Your task to perform on an android device: change the upload size in google photos Image 0: 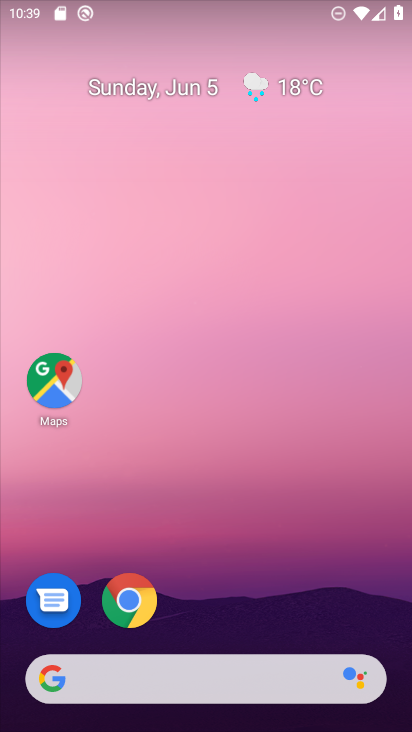
Step 0: drag from (252, 555) to (279, 35)
Your task to perform on an android device: change the upload size in google photos Image 1: 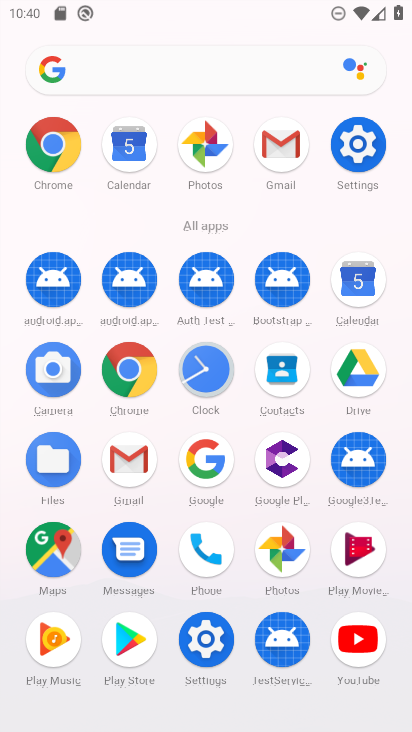
Step 1: click (279, 546)
Your task to perform on an android device: change the upload size in google photos Image 2: 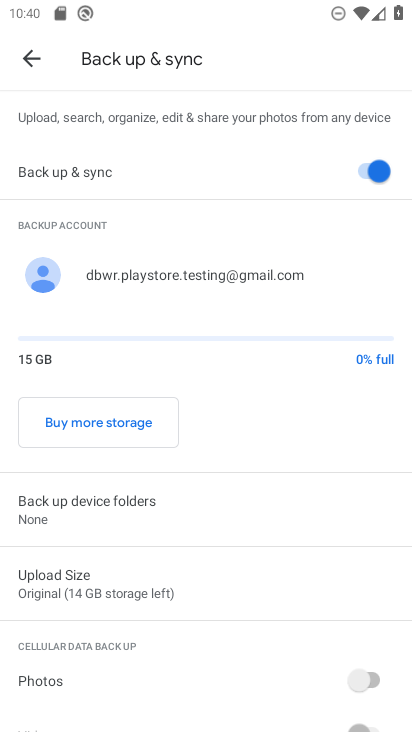
Step 2: click (103, 585)
Your task to perform on an android device: change the upload size in google photos Image 3: 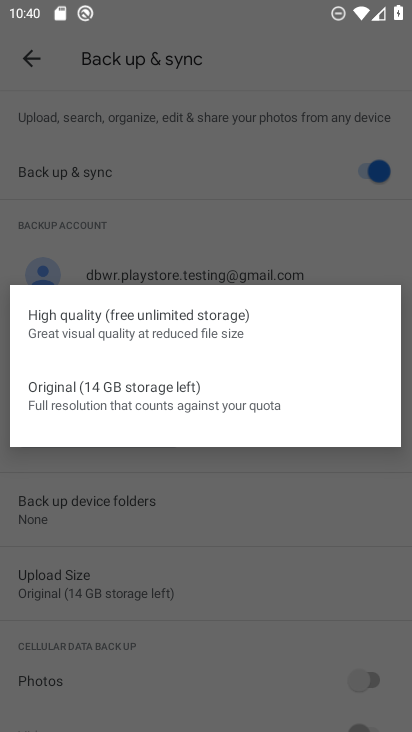
Step 3: click (92, 313)
Your task to perform on an android device: change the upload size in google photos Image 4: 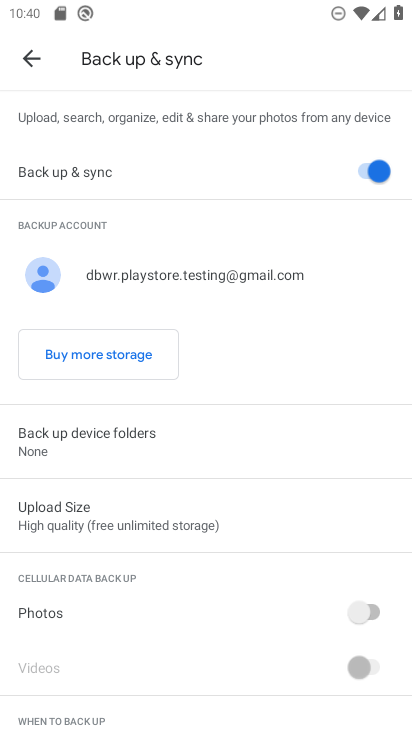
Step 4: task complete